Your task to perform on an android device: visit the assistant section in the google photos Image 0: 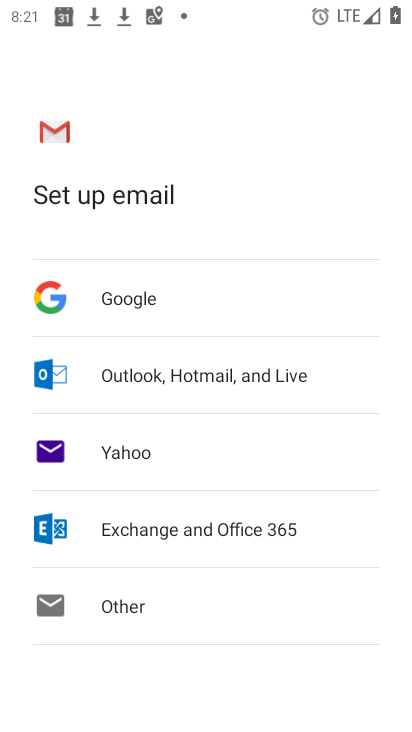
Step 0: press home button
Your task to perform on an android device: visit the assistant section in the google photos Image 1: 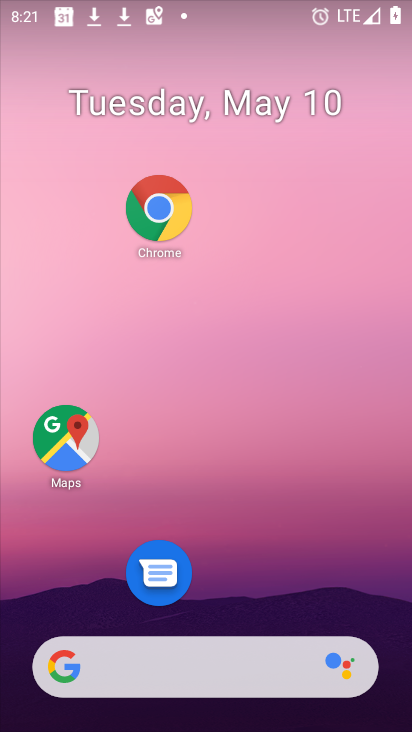
Step 1: drag from (304, 714) to (283, 284)
Your task to perform on an android device: visit the assistant section in the google photos Image 2: 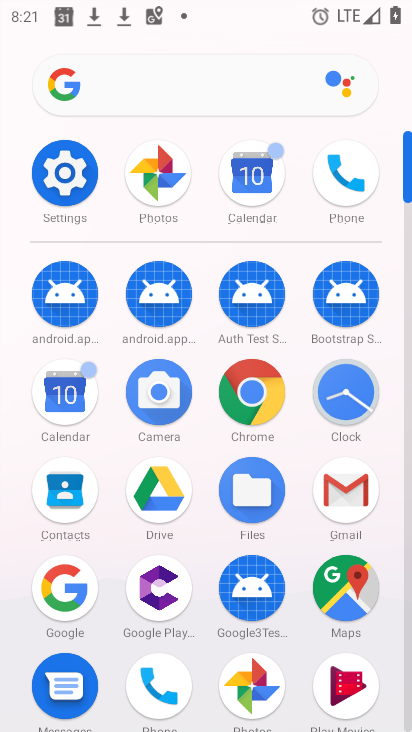
Step 2: click (235, 667)
Your task to perform on an android device: visit the assistant section in the google photos Image 3: 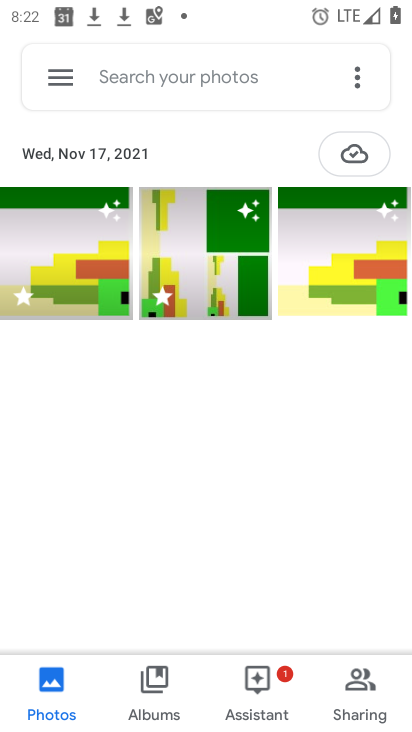
Step 3: click (241, 692)
Your task to perform on an android device: visit the assistant section in the google photos Image 4: 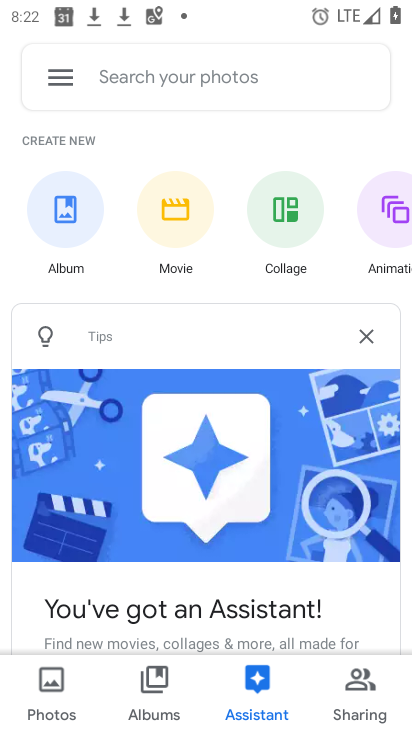
Step 4: task complete